Your task to perform on an android device: Open the stopwatch Image 0: 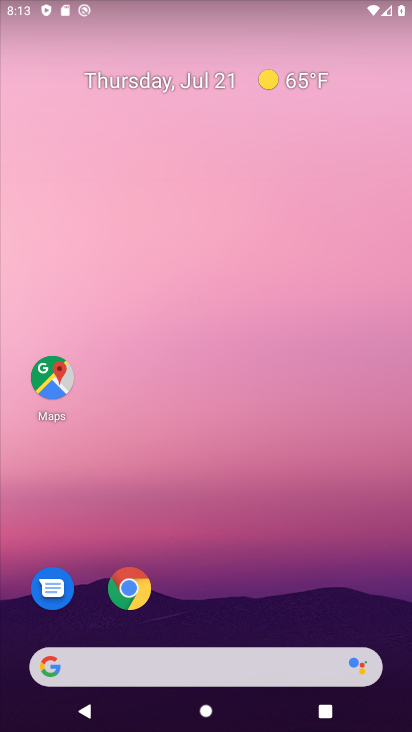
Step 0: drag from (216, 651) to (186, 117)
Your task to perform on an android device: Open the stopwatch Image 1: 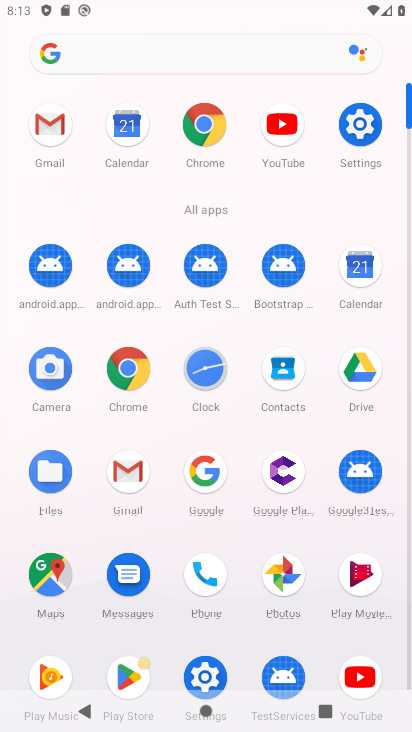
Step 1: click (196, 386)
Your task to perform on an android device: Open the stopwatch Image 2: 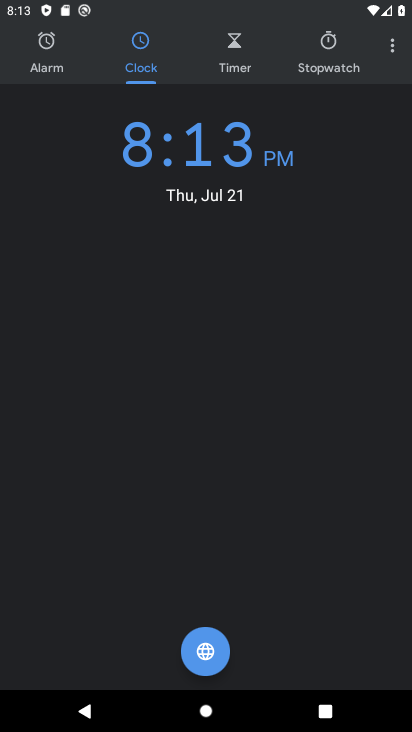
Step 2: click (308, 56)
Your task to perform on an android device: Open the stopwatch Image 3: 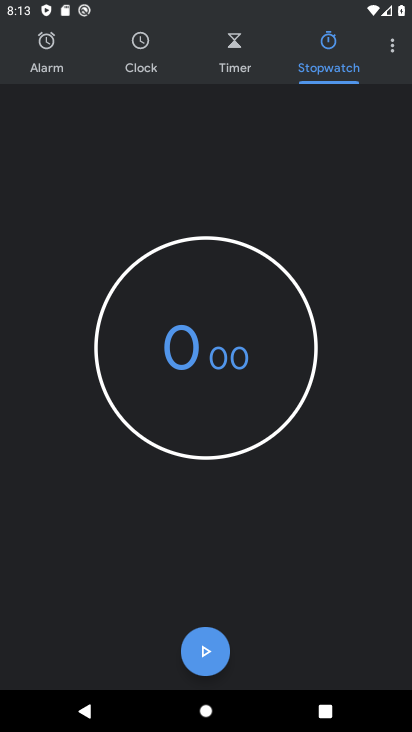
Step 3: task complete